Your task to perform on an android device: What's the weather today? Image 0: 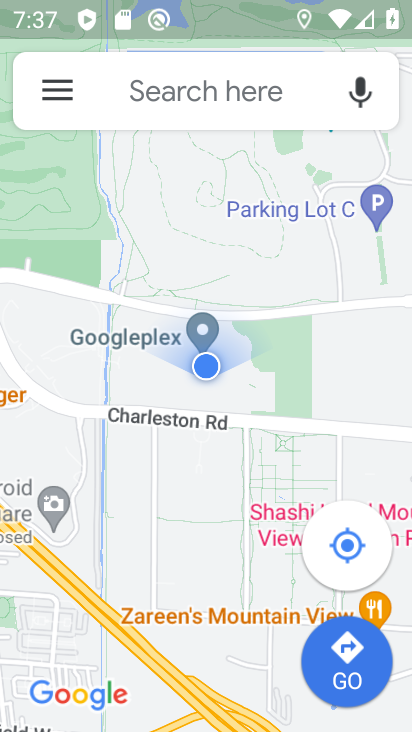
Step 0: drag from (239, 603) to (333, 236)
Your task to perform on an android device: What's the weather today? Image 1: 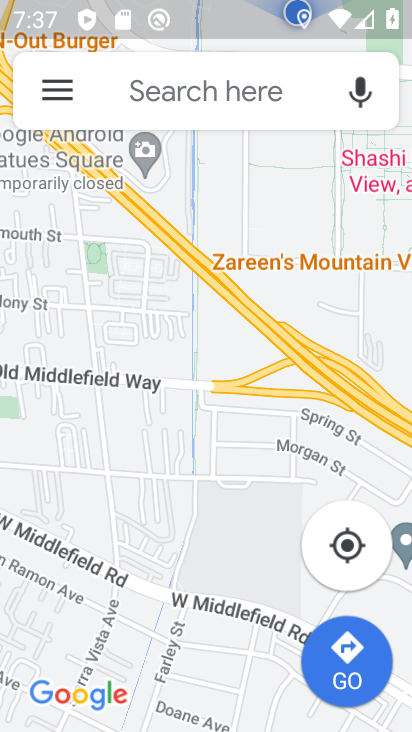
Step 1: press home button
Your task to perform on an android device: What's the weather today? Image 2: 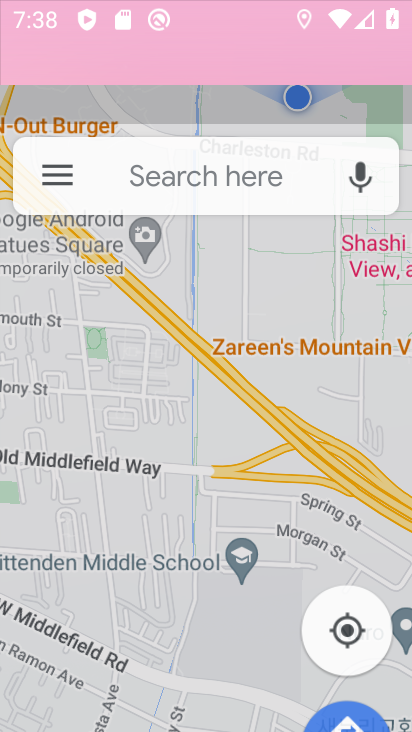
Step 2: drag from (198, 602) to (329, 1)
Your task to perform on an android device: What's the weather today? Image 3: 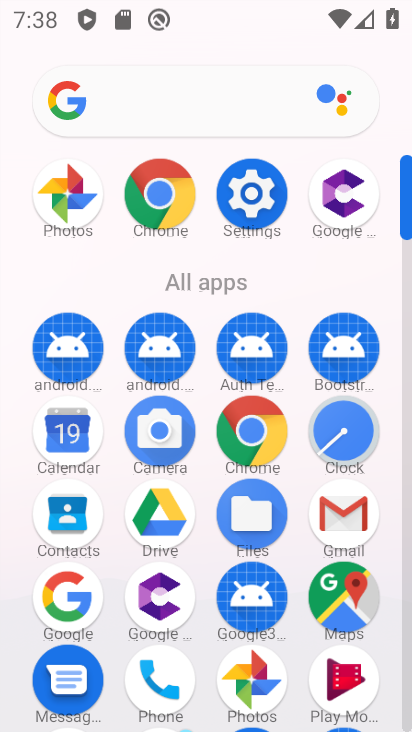
Step 3: click (217, 113)
Your task to perform on an android device: What's the weather today? Image 4: 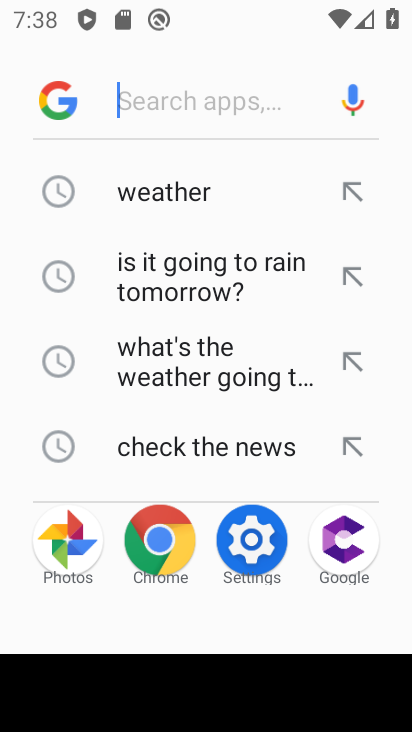
Step 4: type "weather today"
Your task to perform on an android device: What's the weather today? Image 5: 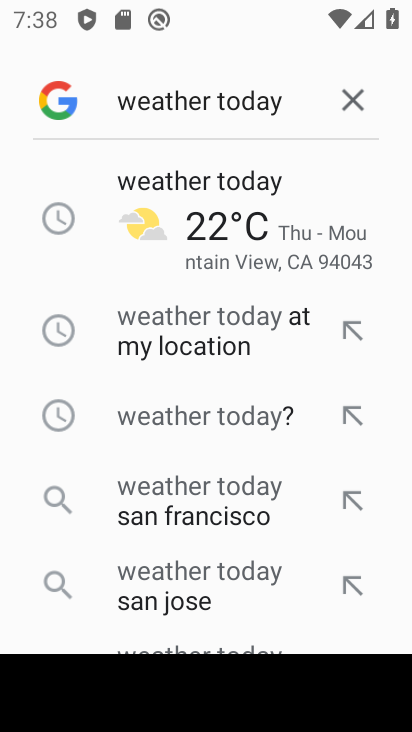
Step 5: click (227, 182)
Your task to perform on an android device: What's the weather today? Image 6: 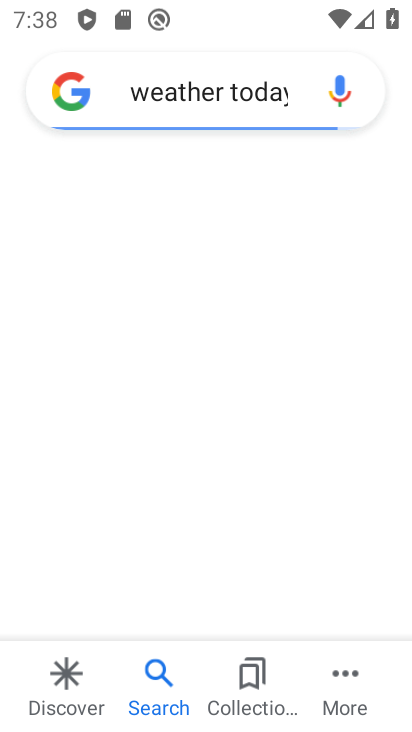
Step 6: task complete